Your task to perform on an android device: turn on improve location accuracy Image 0: 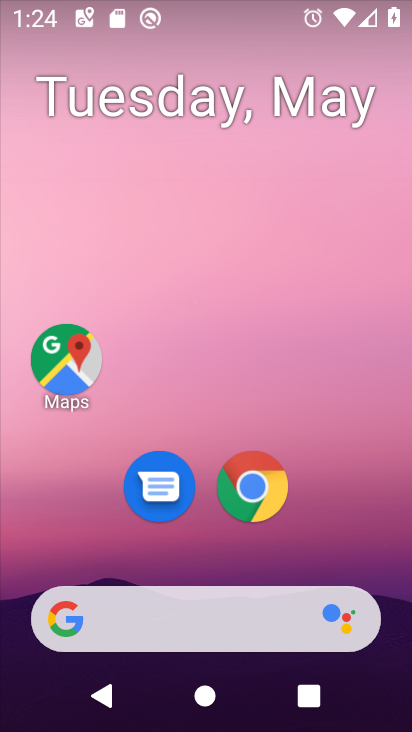
Step 0: drag from (26, 618) to (270, 158)
Your task to perform on an android device: turn on improve location accuracy Image 1: 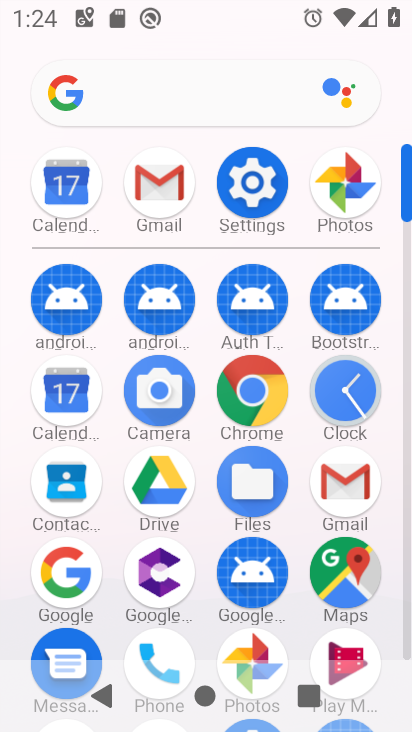
Step 1: click (243, 181)
Your task to perform on an android device: turn on improve location accuracy Image 2: 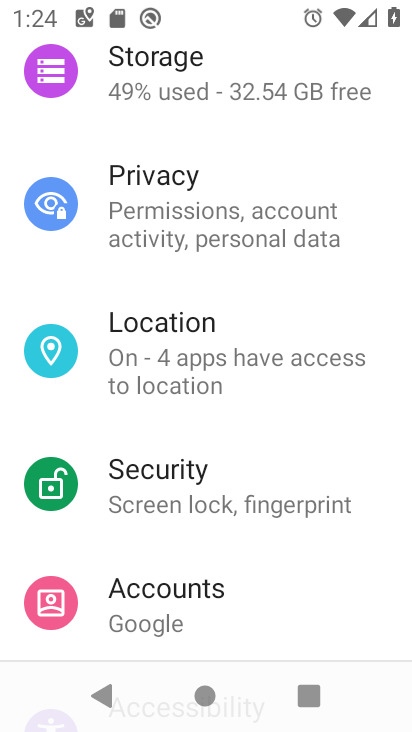
Step 2: click (206, 363)
Your task to perform on an android device: turn on improve location accuracy Image 3: 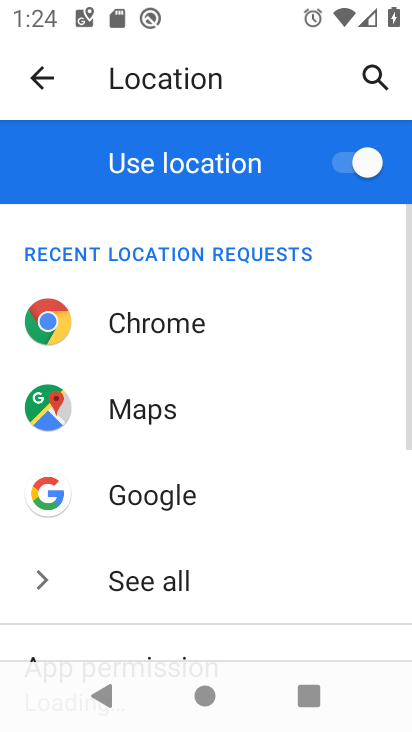
Step 3: drag from (101, 726) to (313, 82)
Your task to perform on an android device: turn on improve location accuracy Image 4: 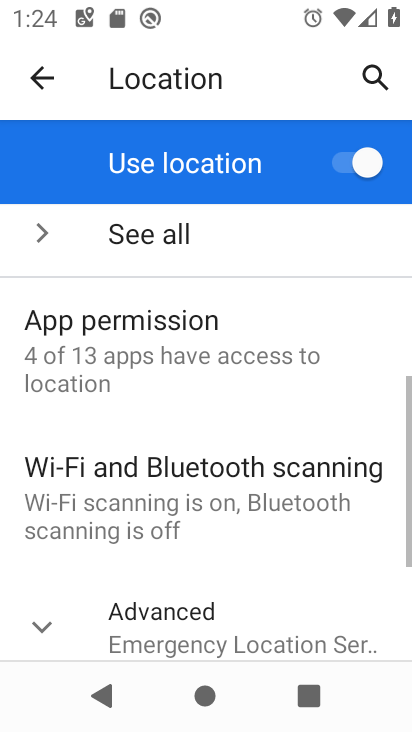
Step 4: click (189, 612)
Your task to perform on an android device: turn on improve location accuracy Image 5: 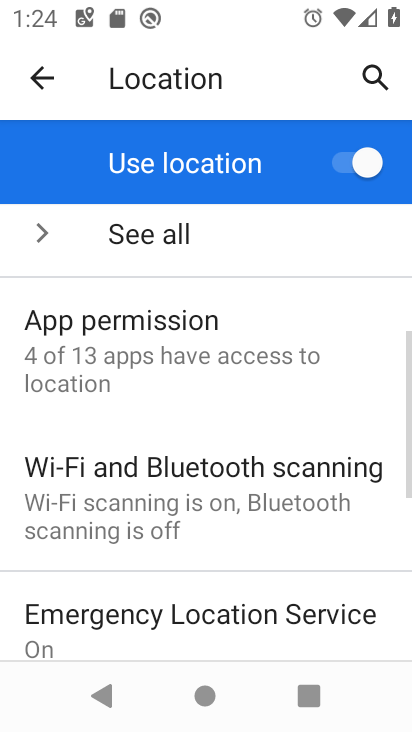
Step 5: drag from (51, 581) to (234, 103)
Your task to perform on an android device: turn on improve location accuracy Image 6: 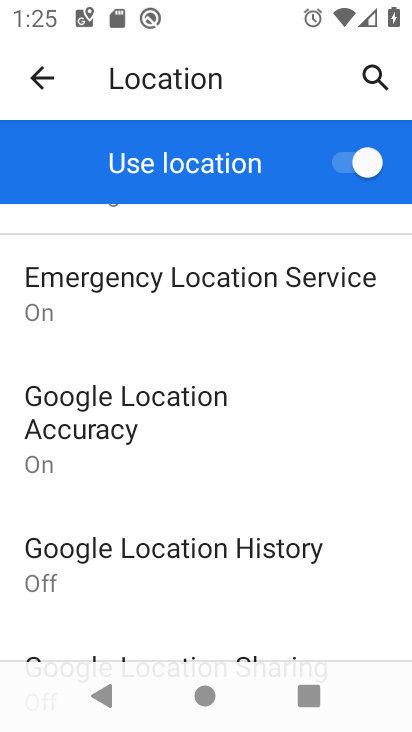
Step 6: click (99, 418)
Your task to perform on an android device: turn on improve location accuracy Image 7: 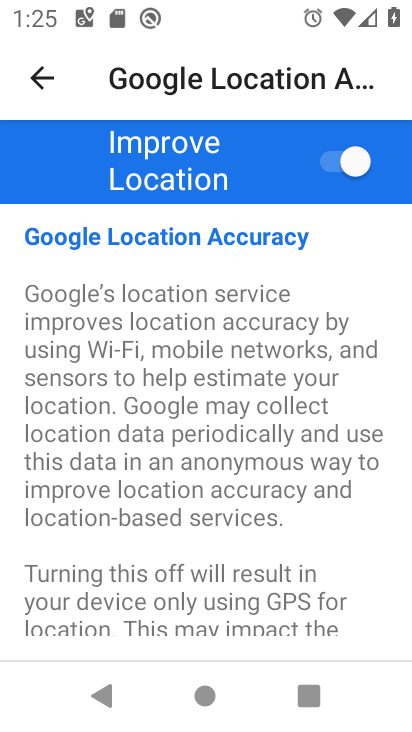
Step 7: task complete